Your task to perform on an android device: Open wifi settings Image 0: 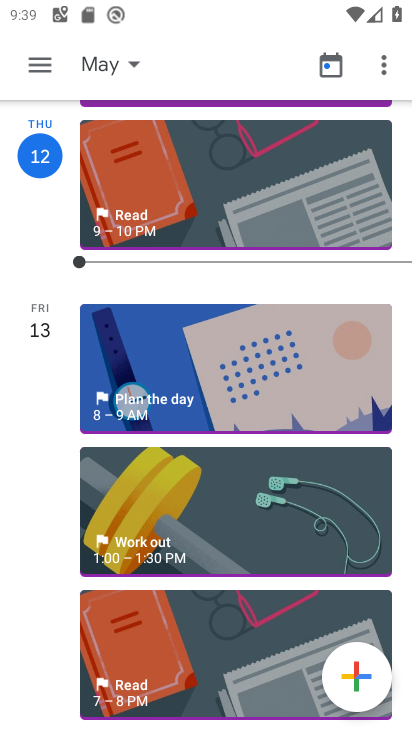
Step 0: press home button
Your task to perform on an android device: Open wifi settings Image 1: 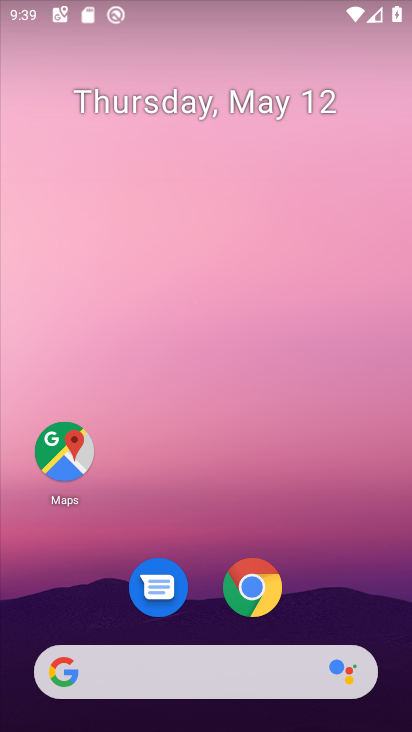
Step 1: drag from (391, 647) to (252, 120)
Your task to perform on an android device: Open wifi settings Image 2: 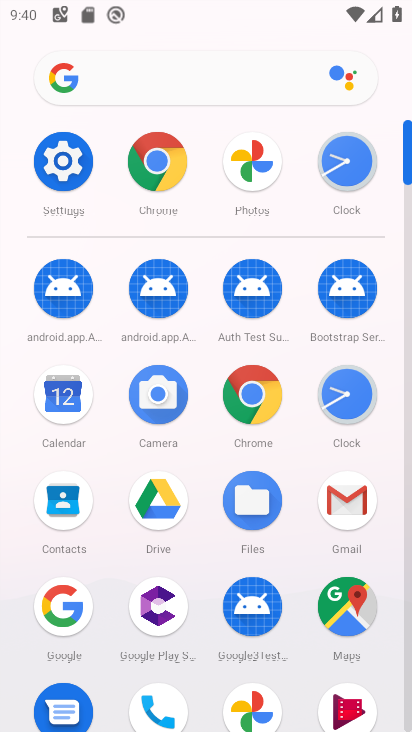
Step 2: click (66, 167)
Your task to perform on an android device: Open wifi settings Image 3: 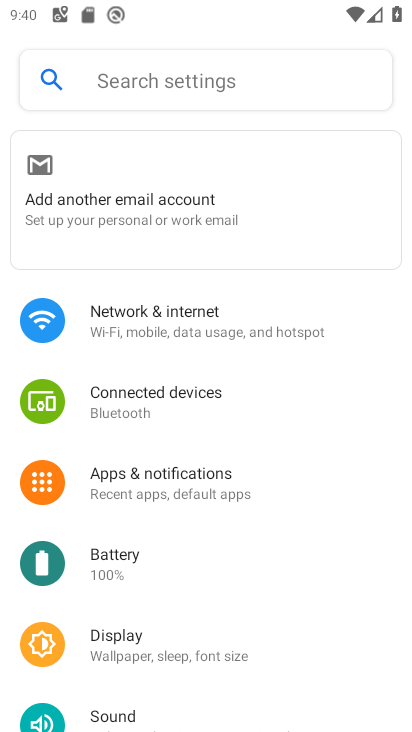
Step 3: click (187, 302)
Your task to perform on an android device: Open wifi settings Image 4: 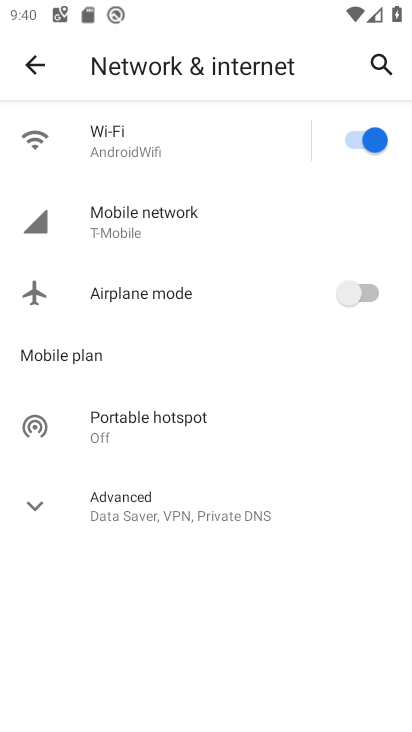
Step 4: click (164, 119)
Your task to perform on an android device: Open wifi settings Image 5: 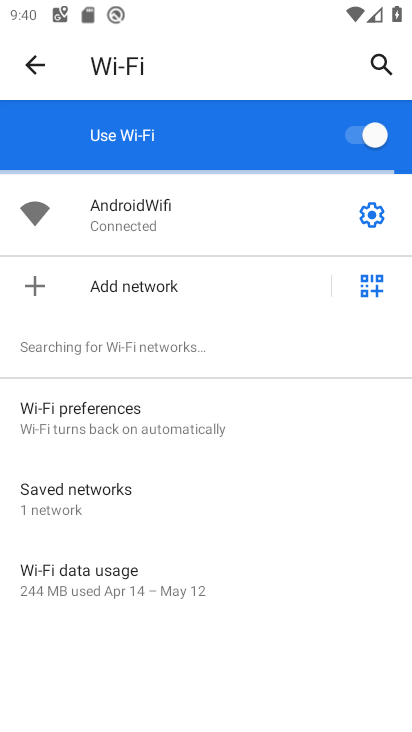
Step 5: task complete